Your task to perform on an android device: turn on the 12-hour format for clock Image 0: 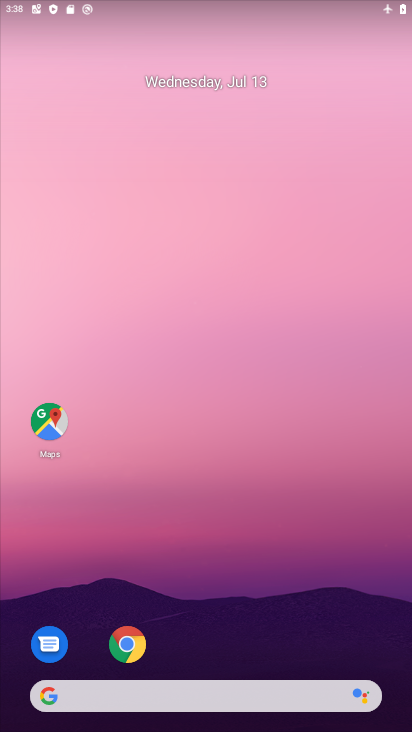
Step 0: drag from (310, 596) to (283, 37)
Your task to perform on an android device: turn on the 12-hour format for clock Image 1: 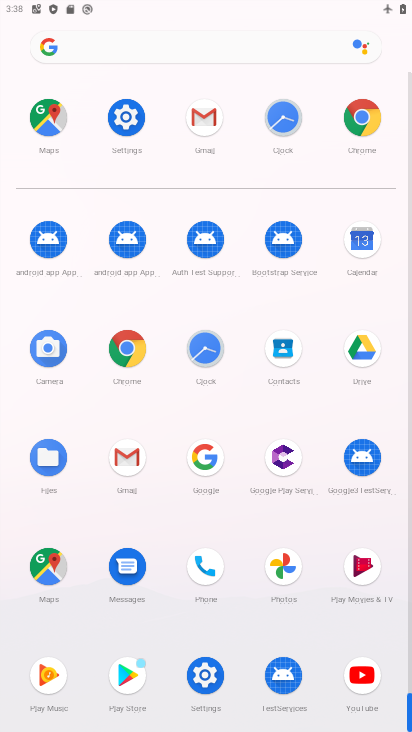
Step 1: click (293, 112)
Your task to perform on an android device: turn on the 12-hour format for clock Image 2: 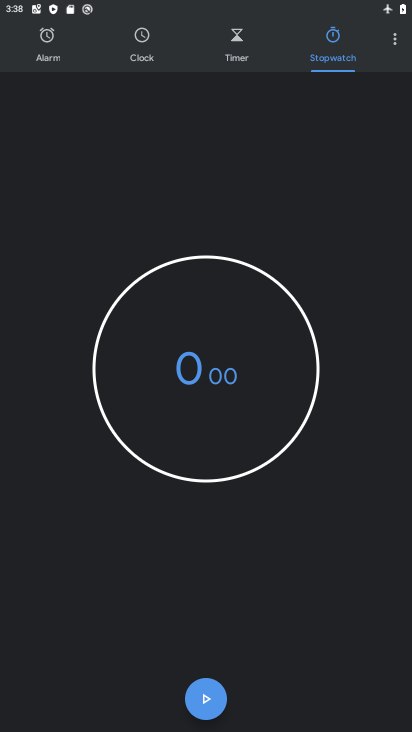
Step 2: click (400, 45)
Your task to perform on an android device: turn on the 12-hour format for clock Image 3: 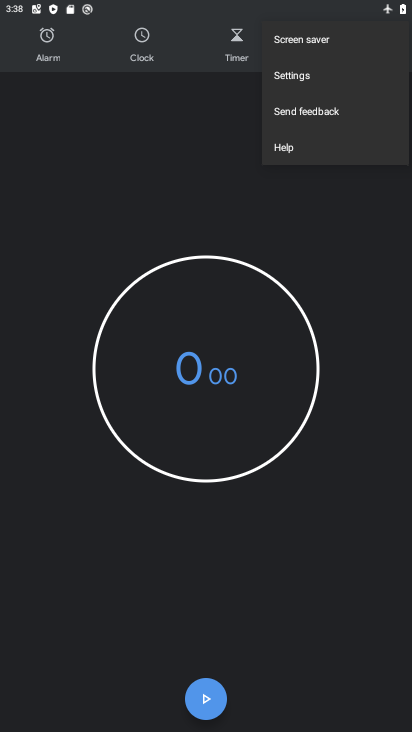
Step 3: click (311, 83)
Your task to perform on an android device: turn on the 12-hour format for clock Image 4: 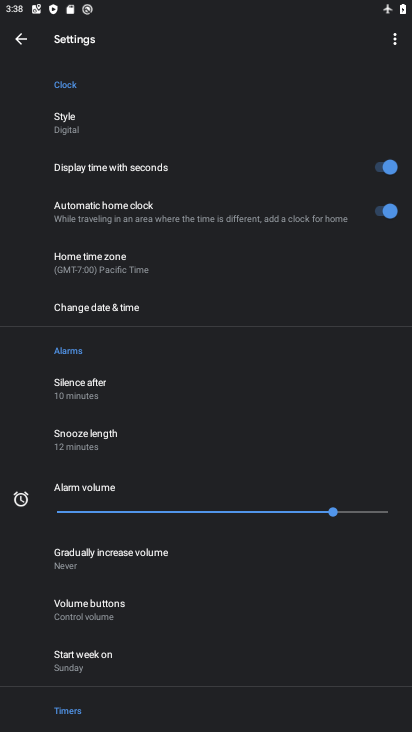
Step 4: click (128, 308)
Your task to perform on an android device: turn on the 12-hour format for clock Image 5: 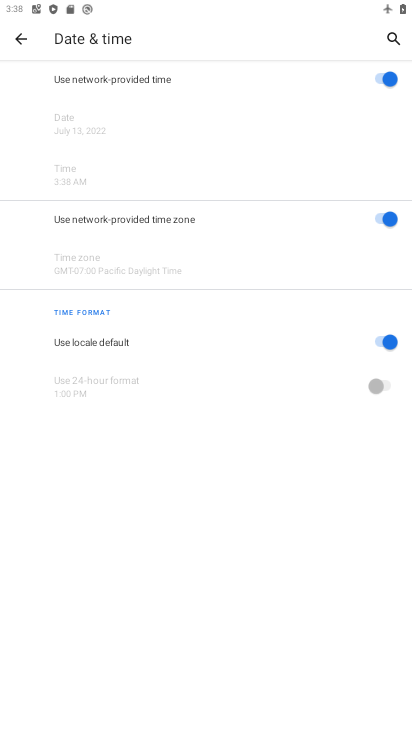
Step 5: task complete